Your task to perform on an android device: Open the phone app and click the voicemail tab. Image 0: 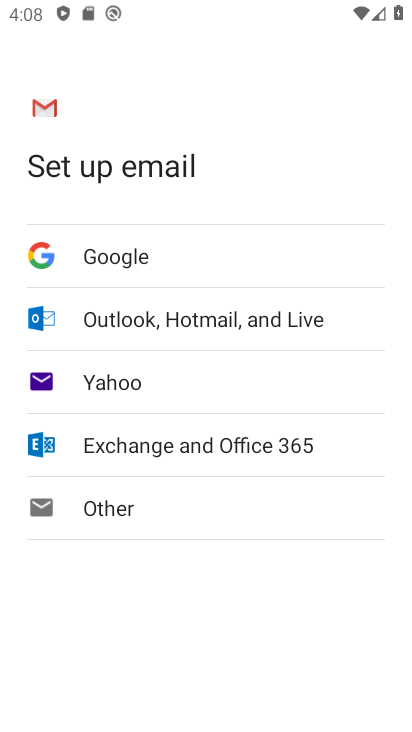
Step 0: press back button
Your task to perform on an android device: Open the phone app and click the voicemail tab. Image 1: 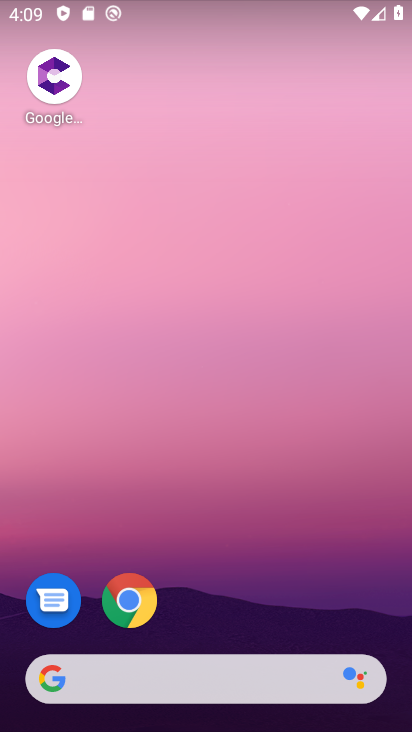
Step 1: drag from (210, 593) to (198, 45)
Your task to perform on an android device: Open the phone app and click the voicemail tab. Image 2: 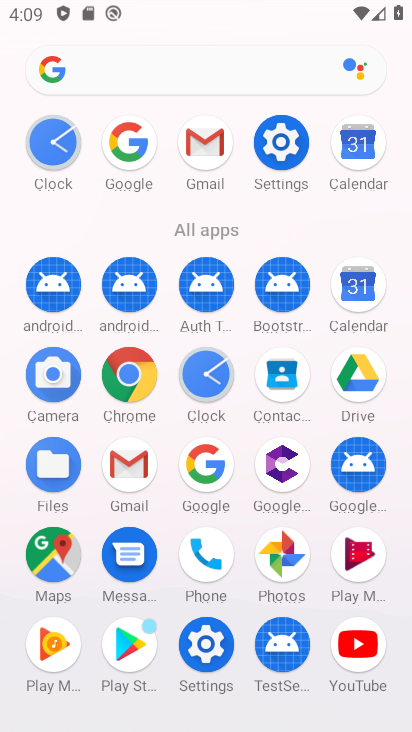
Step 2: click (202, 557)
Your task to perform on an android device: Open the phone app and click the voicemail tab. Image 3: 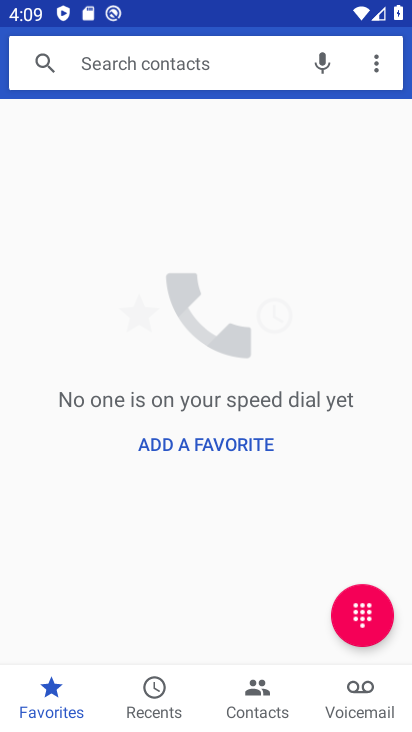
Step 3: click (361, 686)
Your task to perform on an android device: Open the phone app and click the voicemail tab. Image 4: 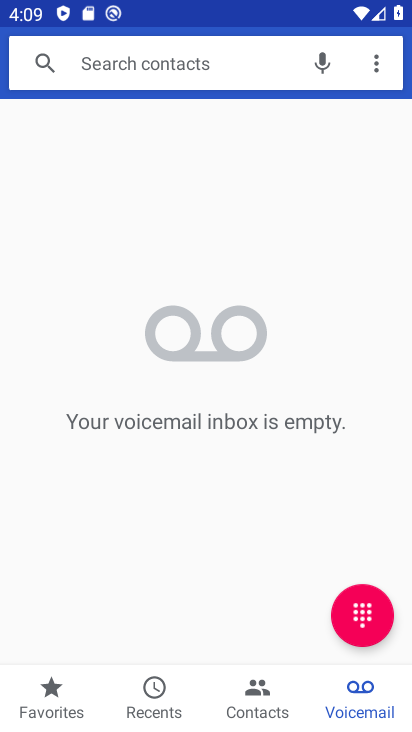
Step 4: task complete